Your task to perform on an android device: What's the weather? Image 0: 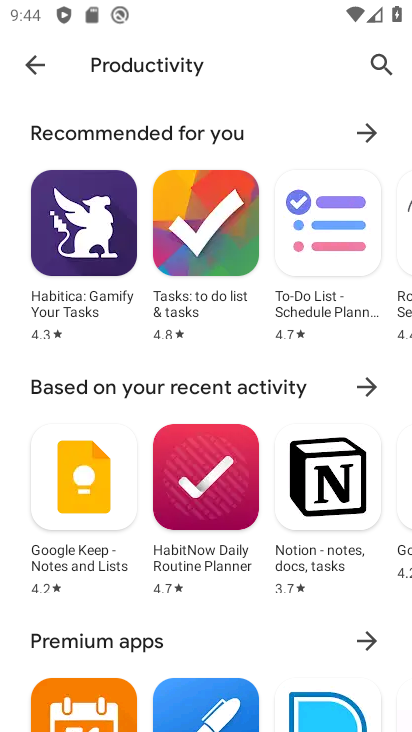
Step 0: press home button
Your task to perform on an android device: What's the weather? Image 1: 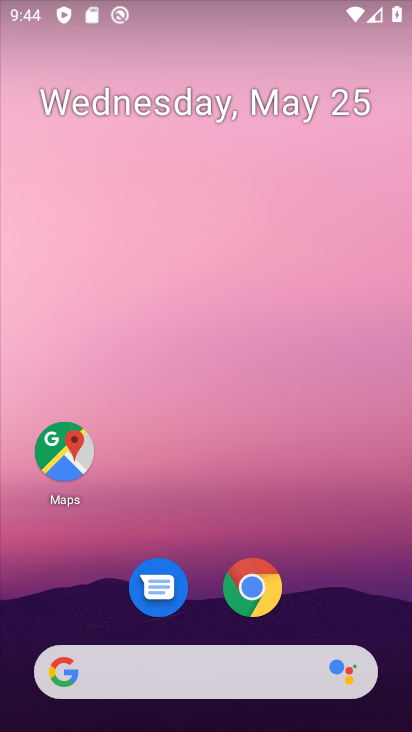
Step 1: click (208, 664)
Your task to perform on an android device: What's the weather? Image 2: 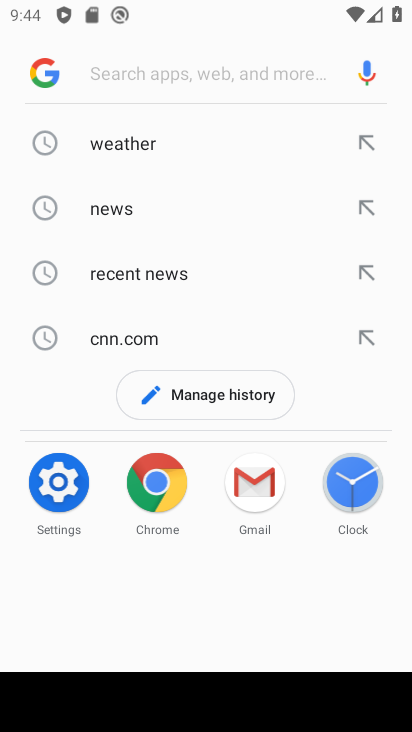
Step 2: click (134, 144)
Your task to perform on an android device: What's the weather? Image 3: 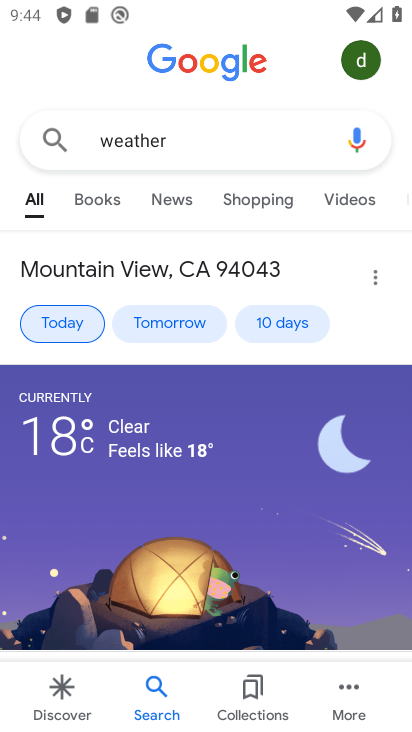
Step 3: task complete